Your task to perform on an android device: turn pop-ups off in chrome Image 0: 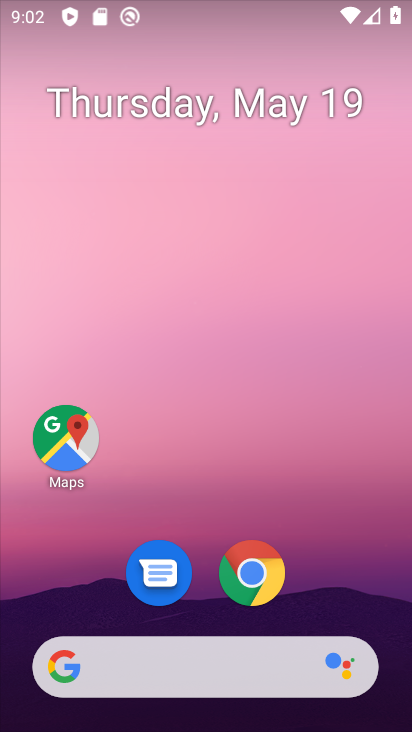
Step 0: click (230, 594)
Your task to perform on an android device: turn pop-ups off in chrome Image 1: 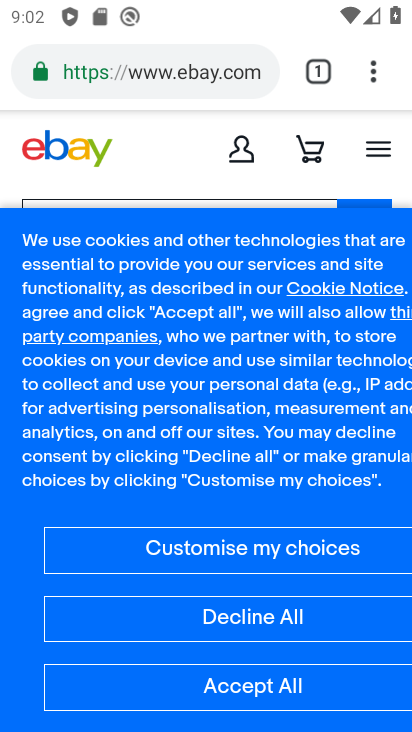
Step 1: drag from (378, 69) to (170, 565)
Your task to perform on an android device: turn pop-ups off in chrome Image 2: 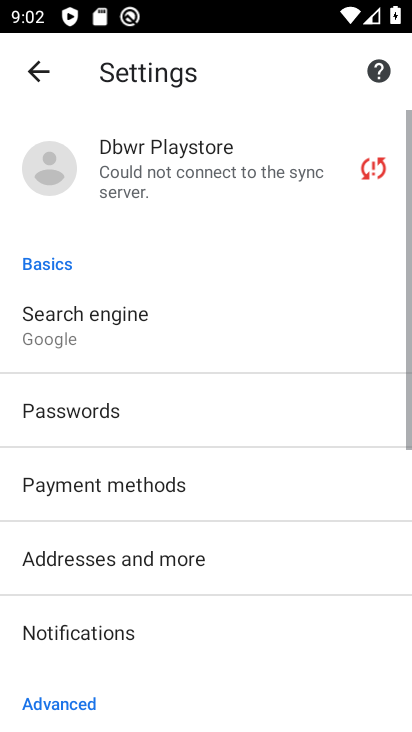
Step 2: drag from (236, 611) to (267, 326)
Your task to perform on an android device: turn pop-ups off in chrome Image 3: 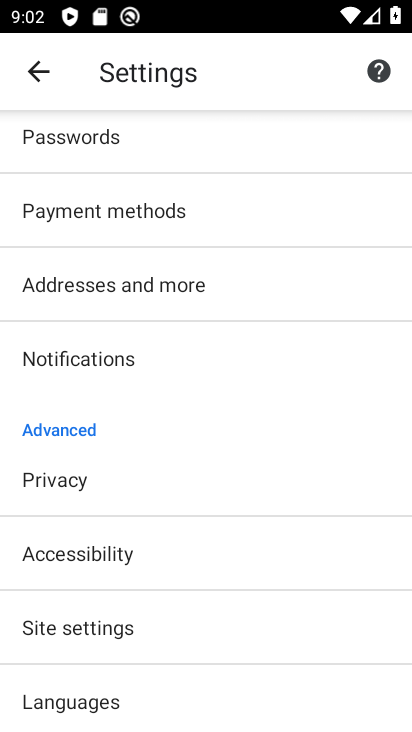
Step 3: drag from (236, 591) to (226, 394)
Your task to perform on an android device: turn pop-ups off in chrome Image 4: 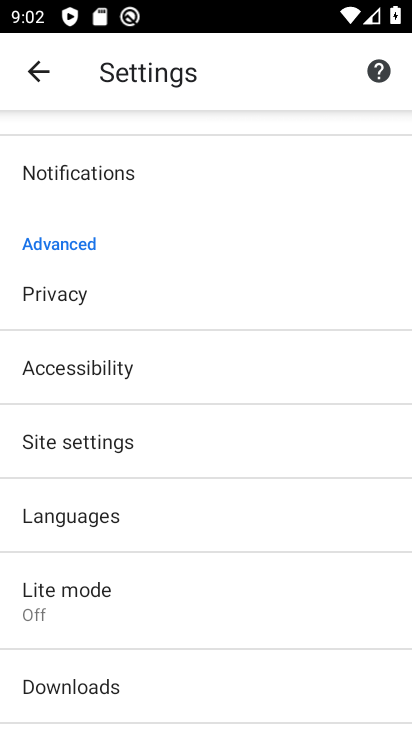
Step 4: click (118, 422)
Your task to perform on an android device: turn pop-ups off in chrome Image 5: 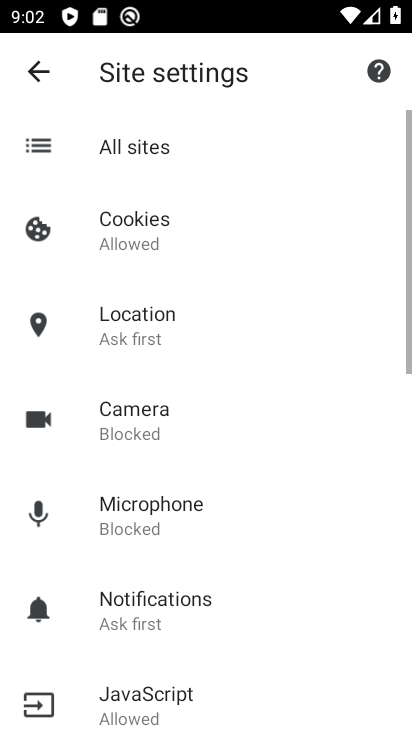
Step 5: drag from (240, 604) to (264, 303)
Your task to perform on an android device: turn pop-ups off in chrome Image 6: 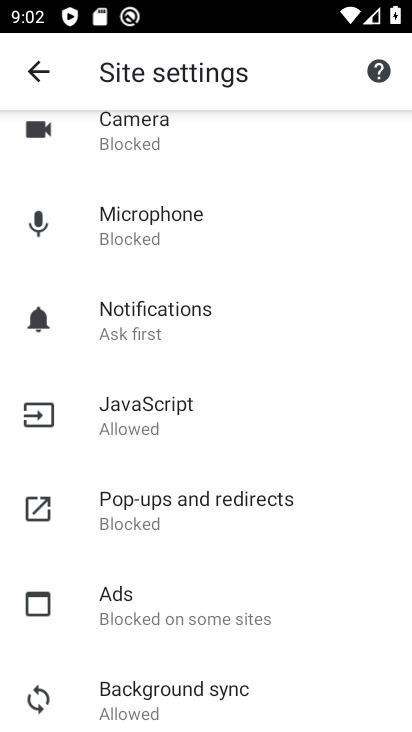
Step 6: click (225, 530)
Your task to perform on an android device: turn pop-ups off in chrome Image 7: 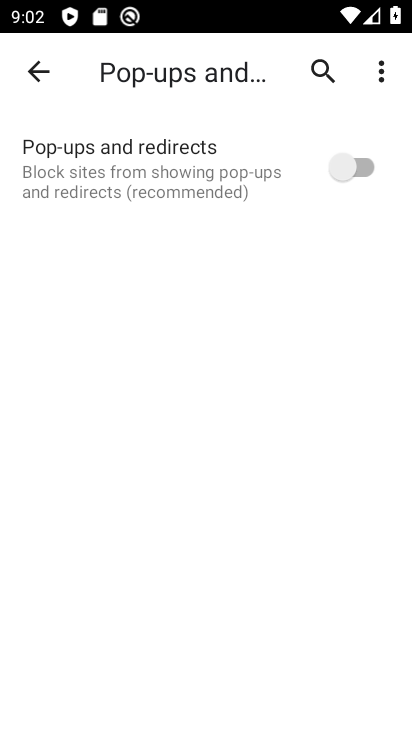
Step 7: task complete